Your task to perform on an android device: install app "Skype" Image 0: 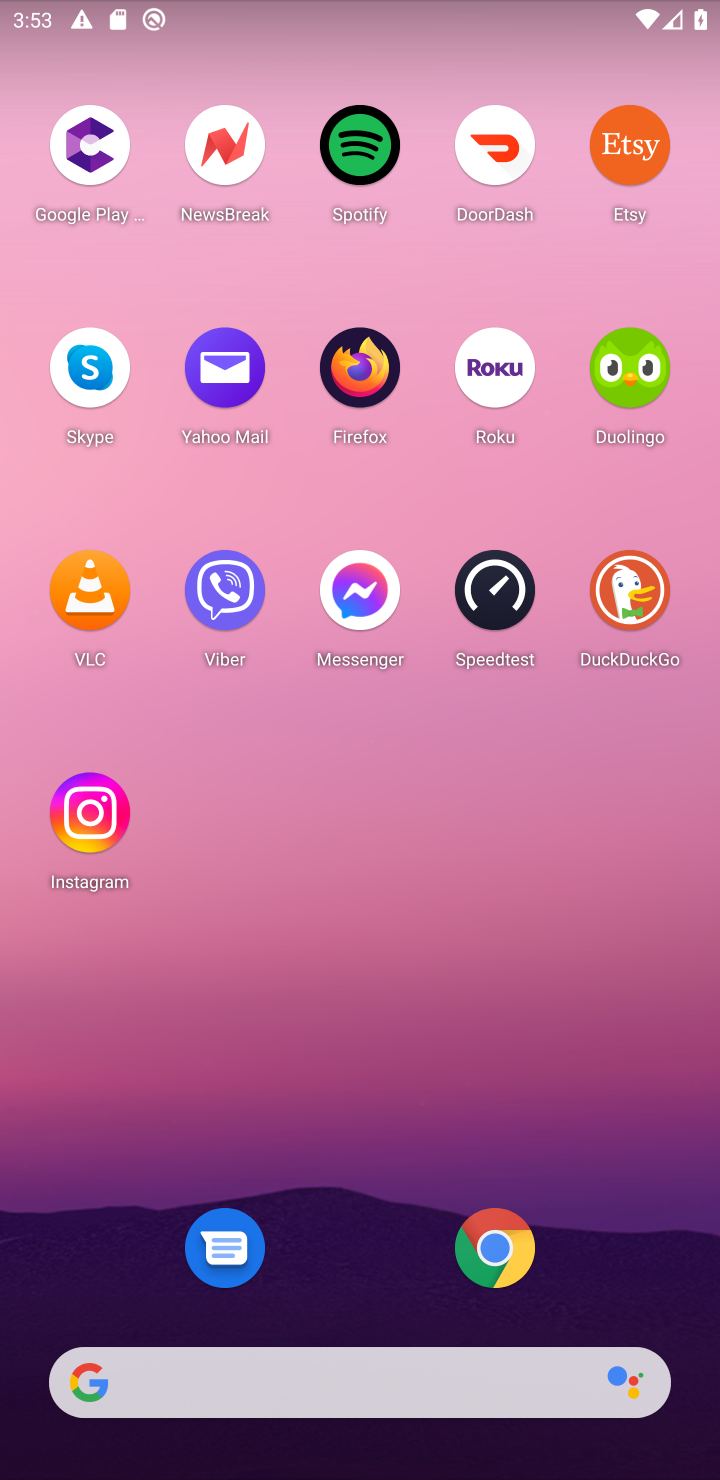
Step 0: drag from (350, 1337) to (259, 96)
Your task to perform on an android device: install app "Skype" Image 1: 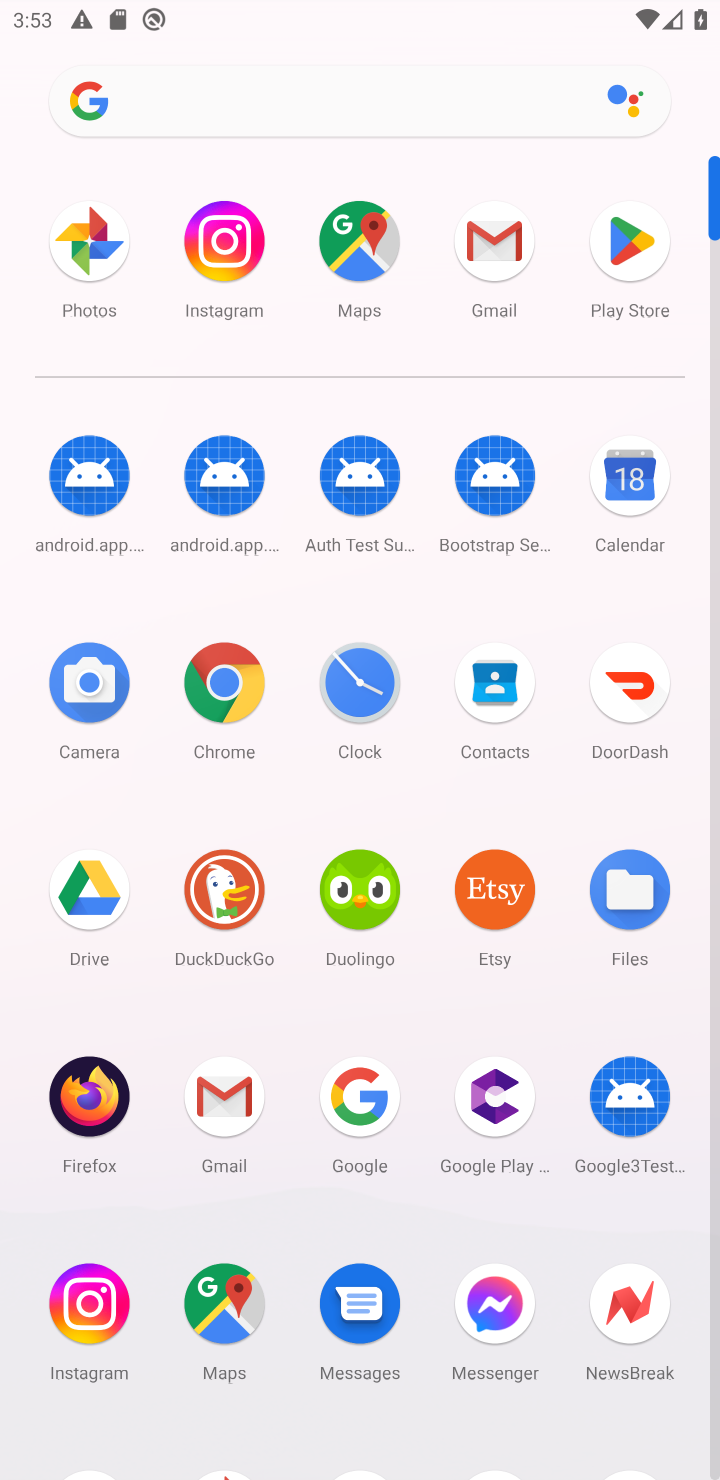
Step 1: click (617, 231)
Your task to perform on an android device: install app "Skype" Image 2: 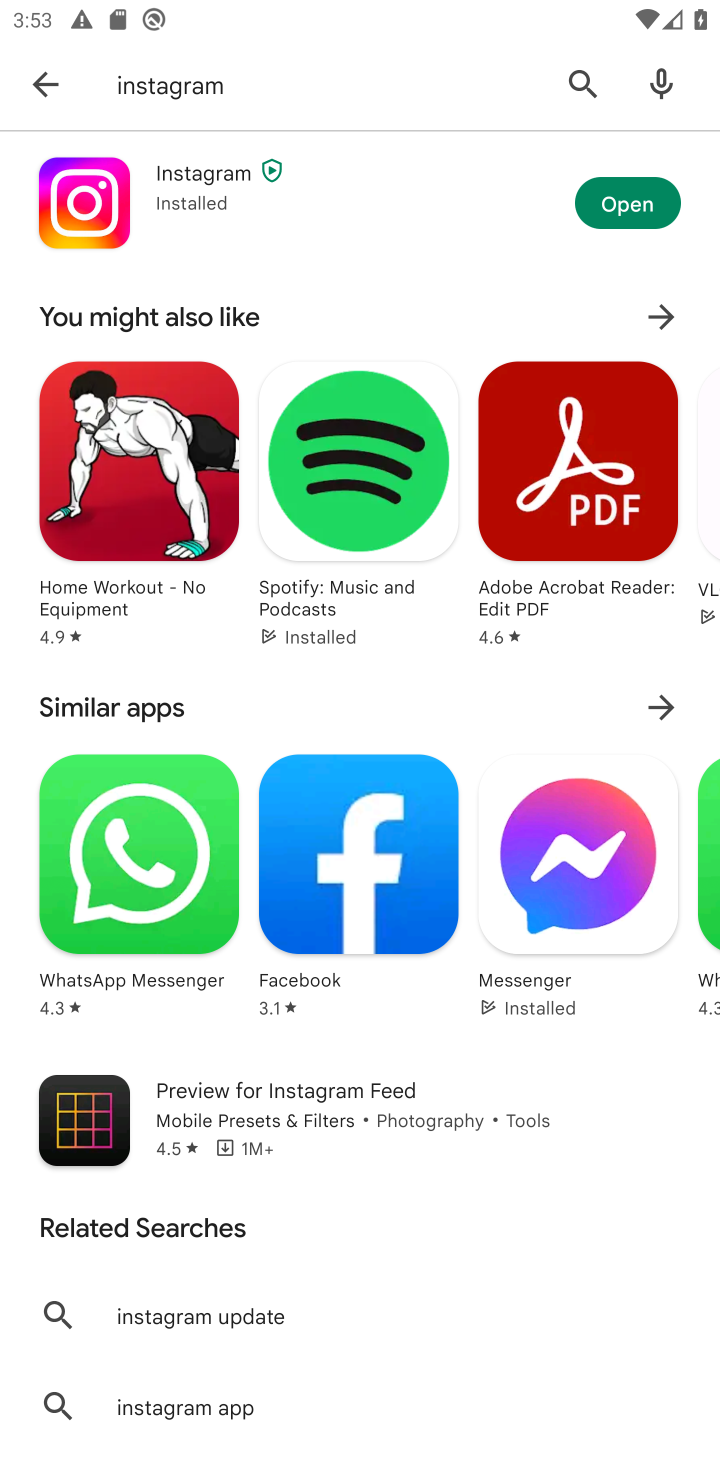
Step 2: click (559, 63)
Your task to perform on an android device: install app "Skype" Image 3: 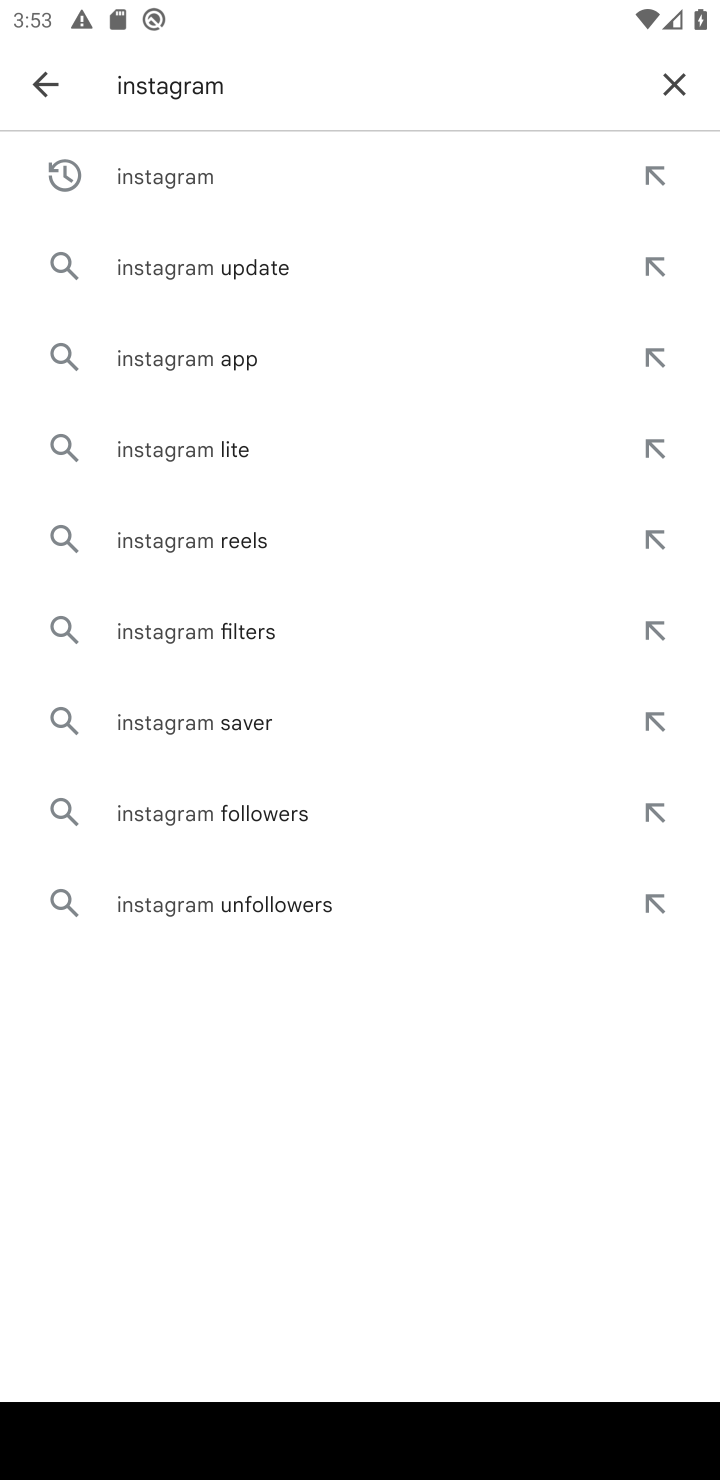
Step 3: click (673, 67)
Your task to perform on an android device: install app "Skype" Image 4: 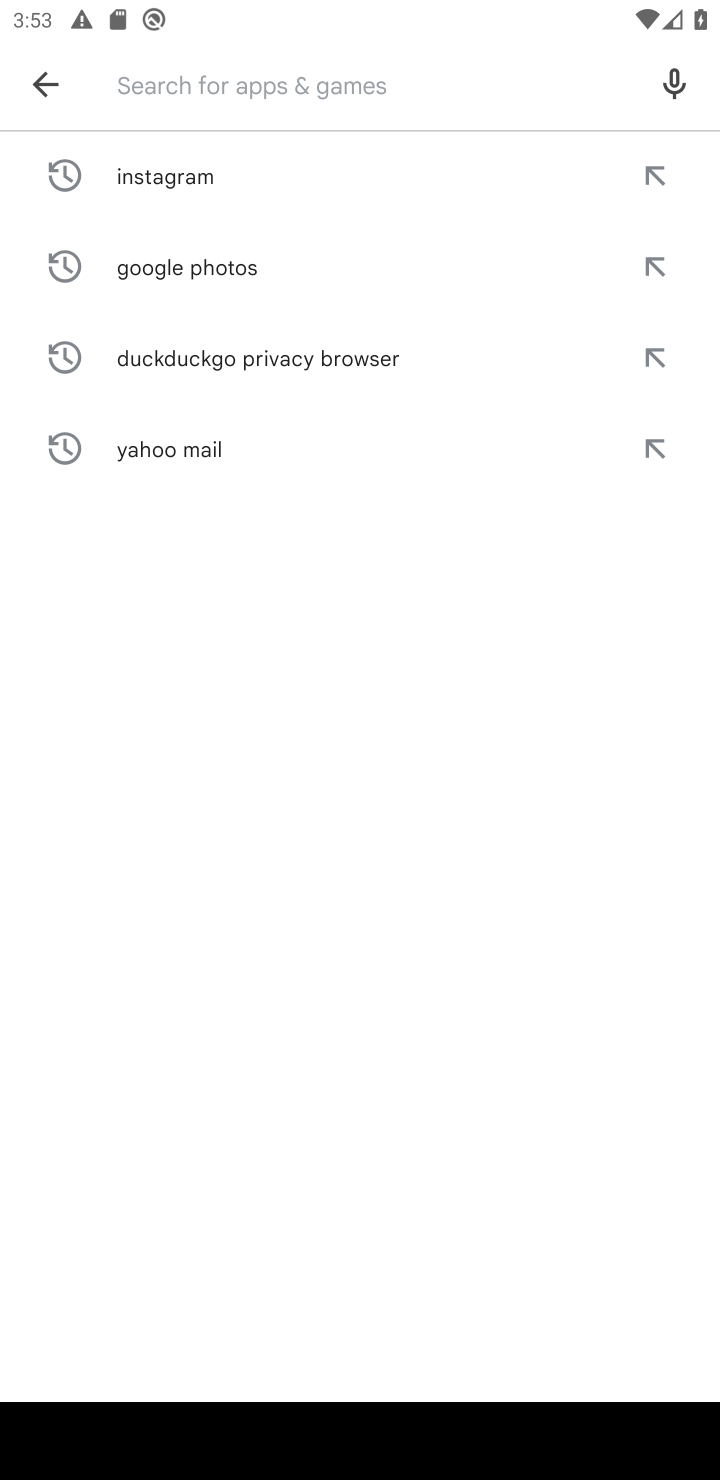
Step 4: type "Skype"
Your task to perform on an android device: install app "Skype" Image 5: 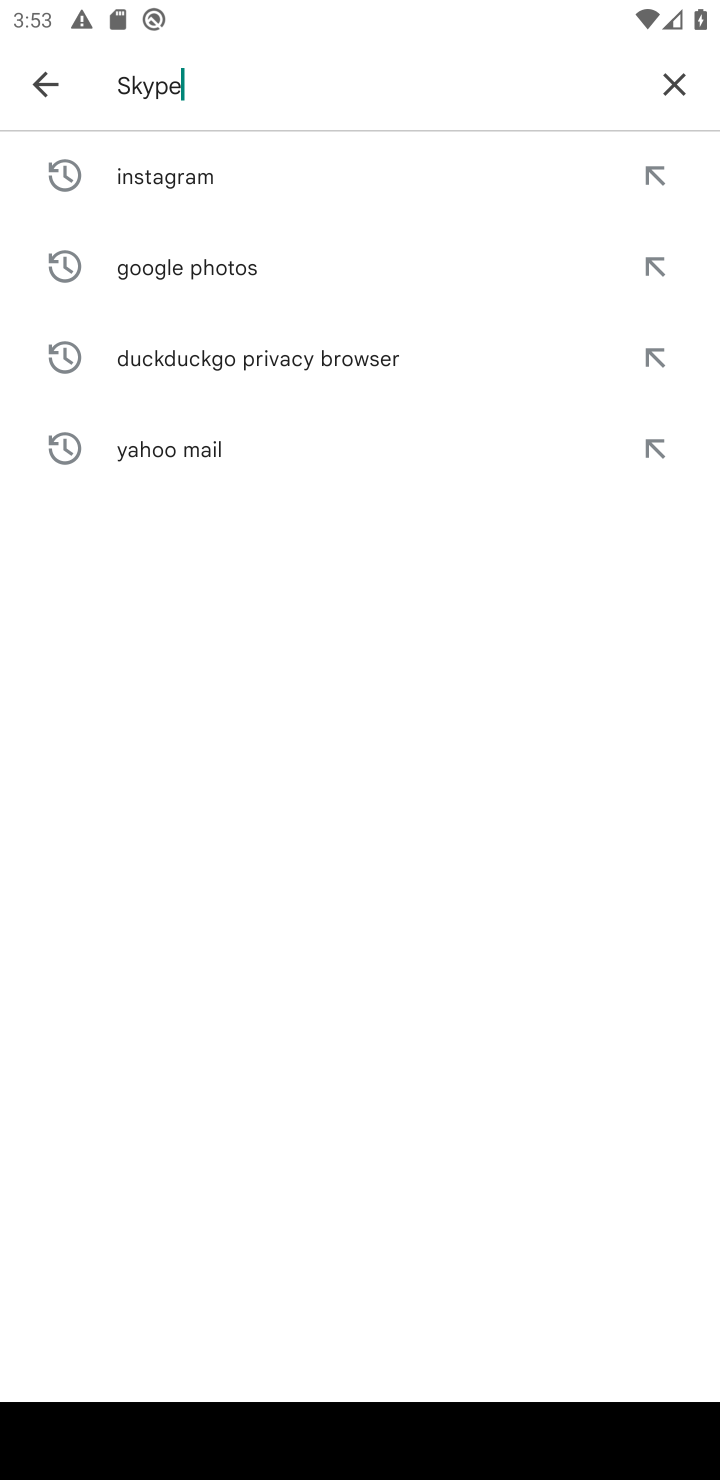
Step 5: type ""
Your task to perform on an android device: install app "Skype" Image 6: 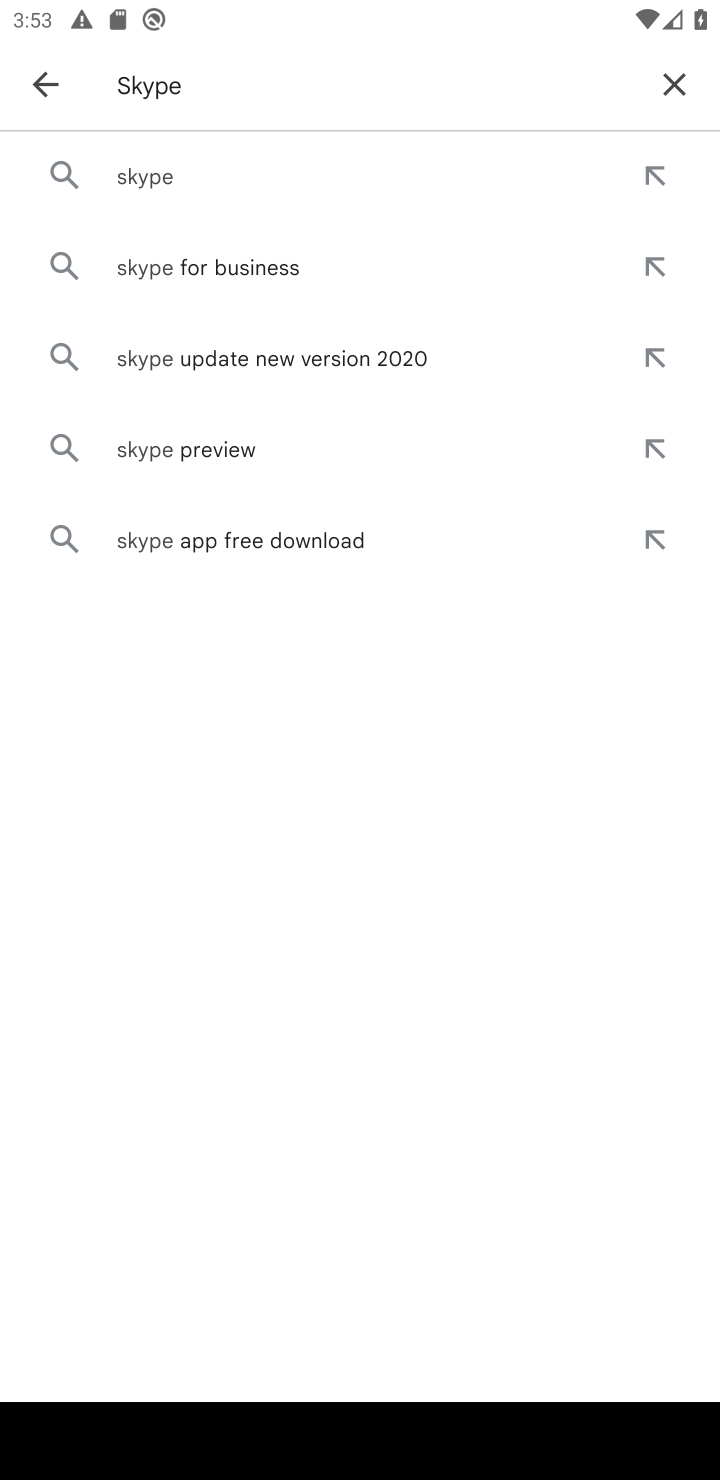
Step 6: click (136, 171)
Your task to perform on an android device: install app "Skype" Image 7: 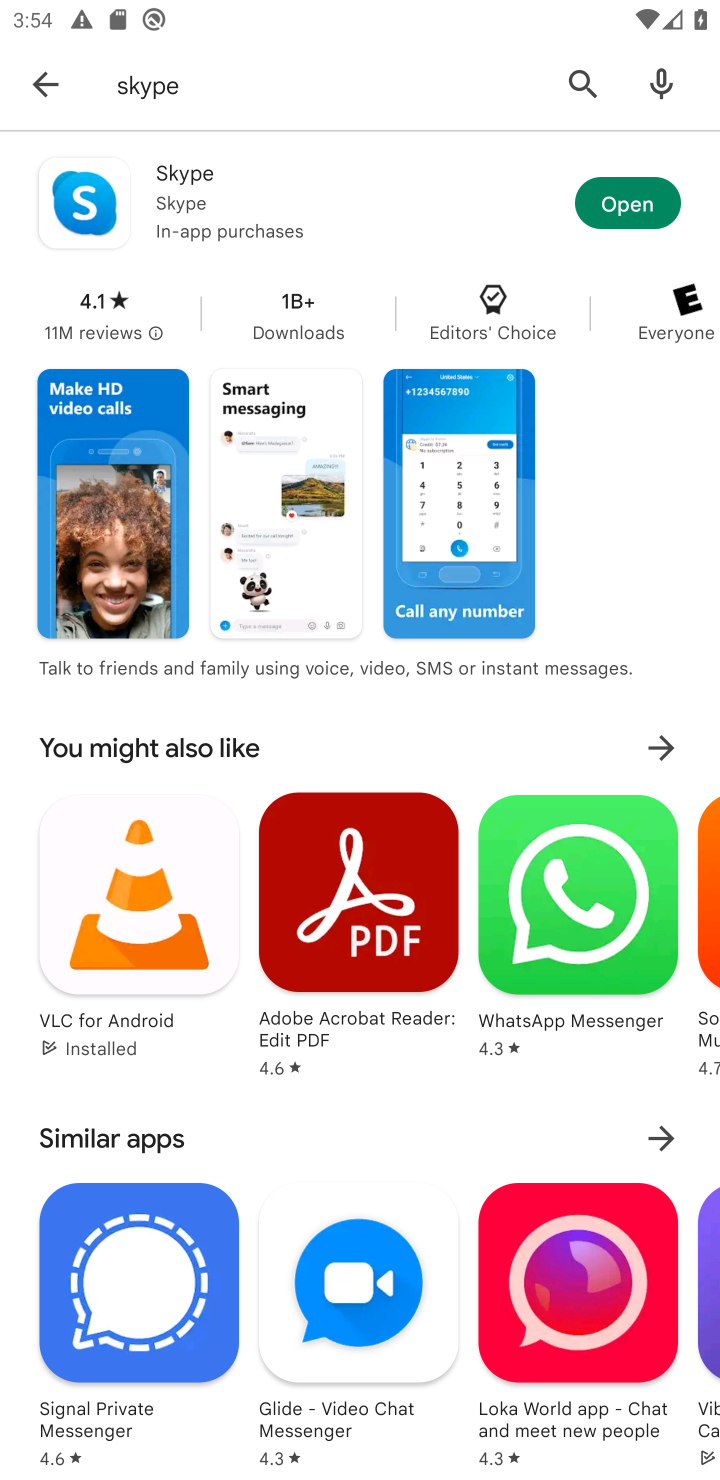
Step 7: task complete